Your task to perform on an android device: Open Chrome and go to settings Image 0: 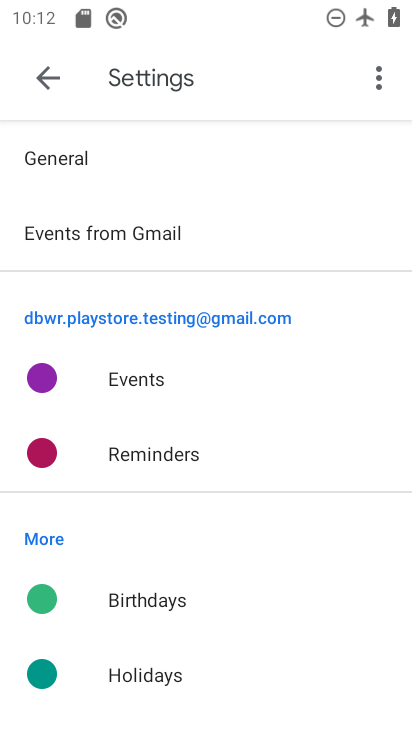
Step 0: press home button
Your task to perform on an android device: Open Chrome and go to settings Image 1: 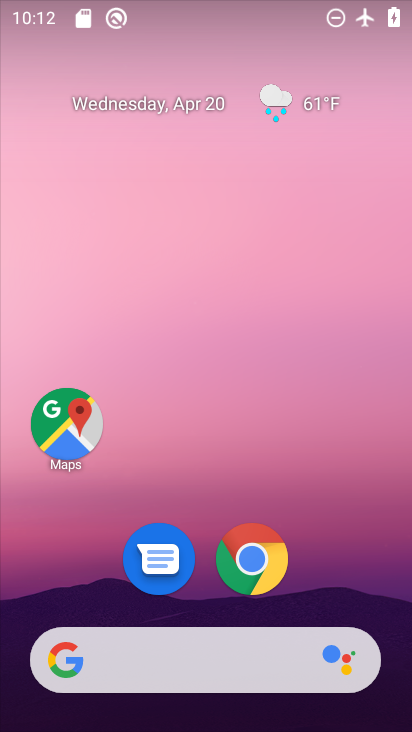
Step 1: click (254, 561)
Your task to perform on an android device: Open Chrome and go to settings Image 2: 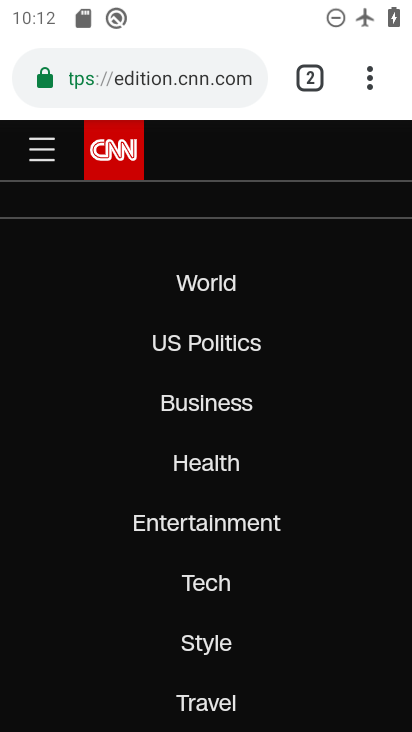
Step 2: click (366, 84)
Your task to perform on an android device: Open Chrome and go to settings Image 3: 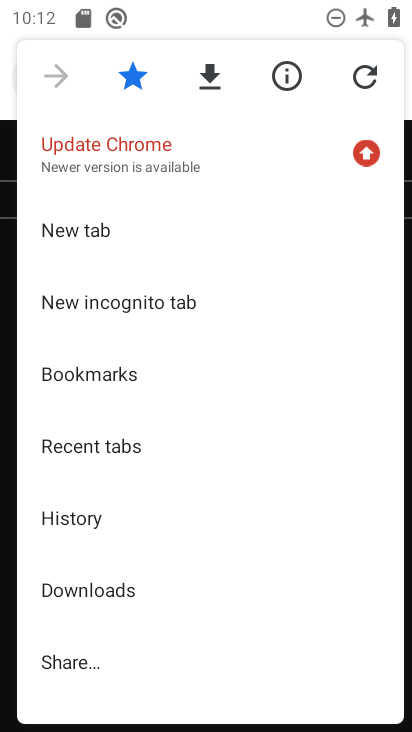
Step 3: drag from (199, 588) to (196, 361)
Your task to perform on an android device: Open Chrome and go to settings Image 4: 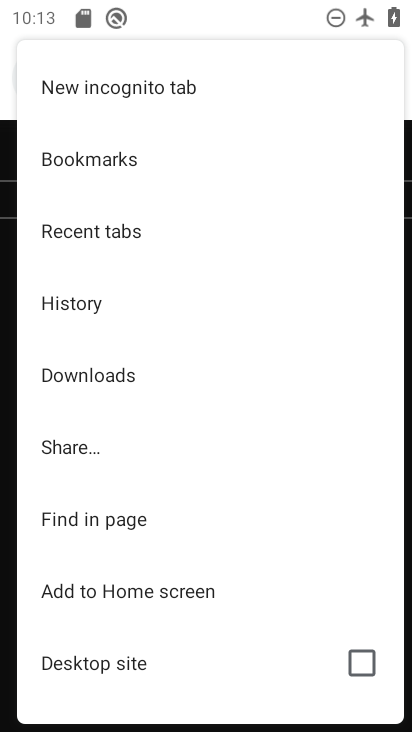
Step 4: drag from (226, 570) to (196, 335)
Your task to perform on an android device: Open Chrome and go to settings Image 5: 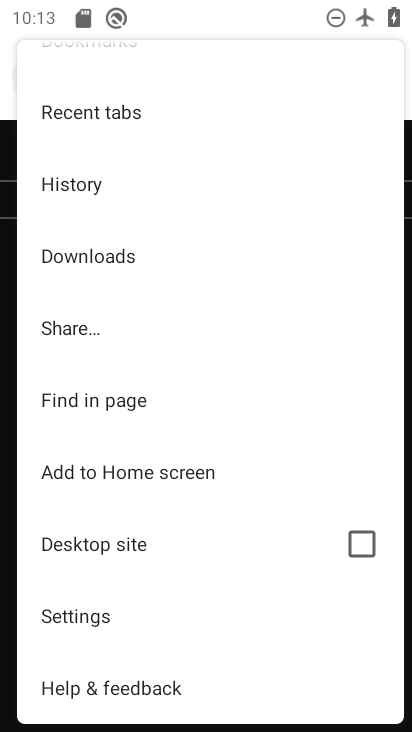
Step 5: click (63, 612)
Your task to perform on an android device: Open Chrome and go to settings Image 6: 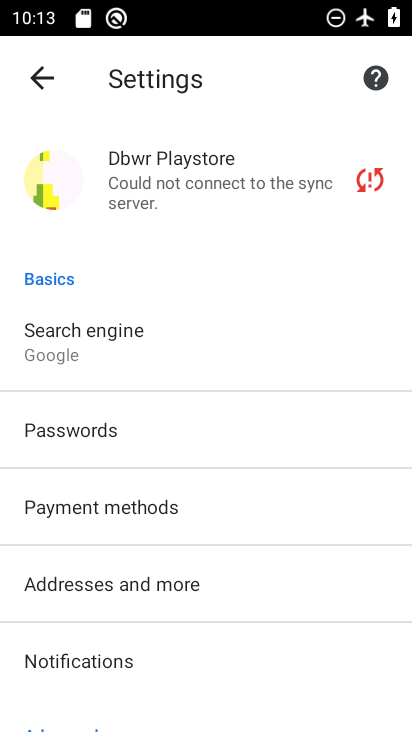
Step 6: task complete